Your task to perform on an android device: allow cookies in the chrome app Image 0: 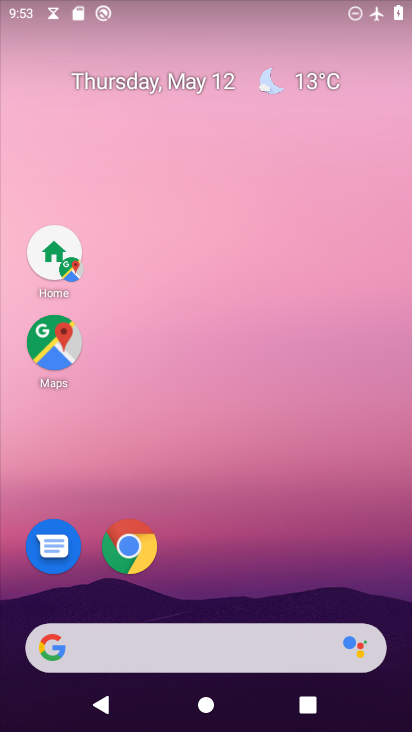
Step 0: press home button
Your task to perform on an android device: allow cookies in the chrome app Image 1: 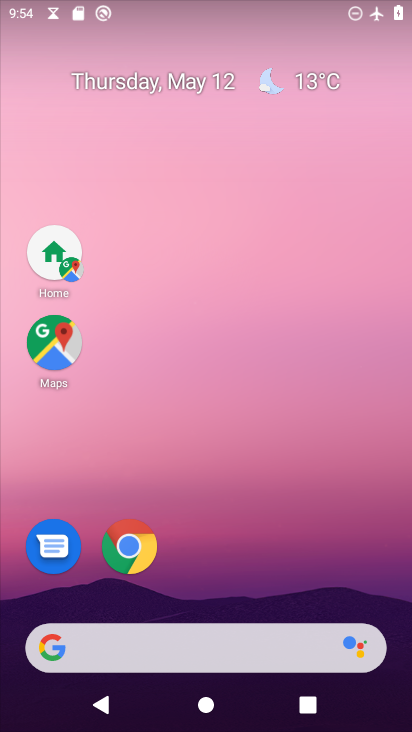
Step 1: drag from (173, 656) to (356, 129)
Your task to perform on an android device: allow cookies in the chrome app Image 2: 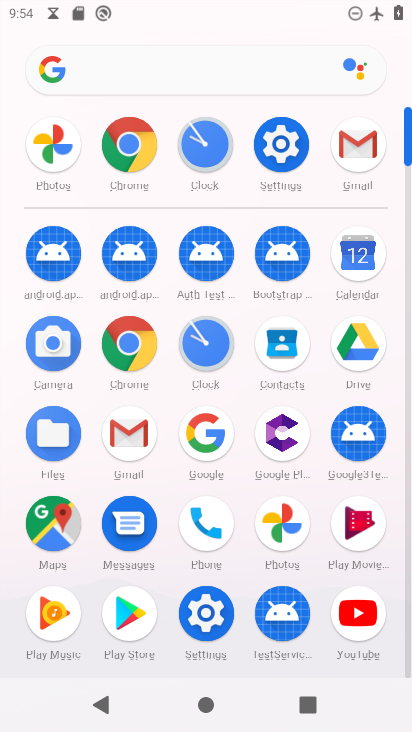
Step 2: click (126, 165)
Your task to perform on an android device: allow cookies in the chrome app Image 3: 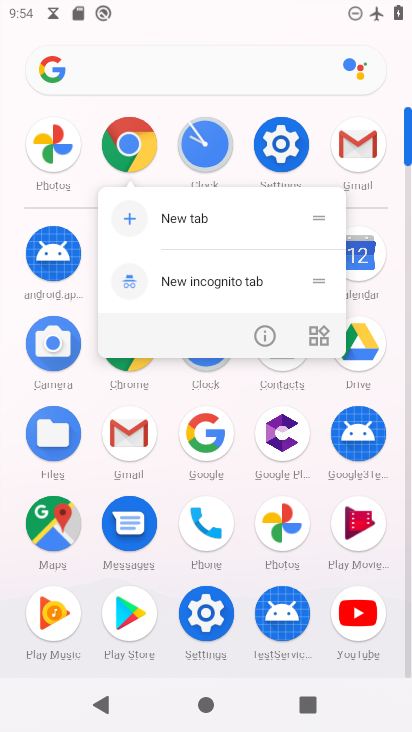
Step 3: click (128, 151)
Your task to perform on an android device: allow cookies in the chrome app Image 4: 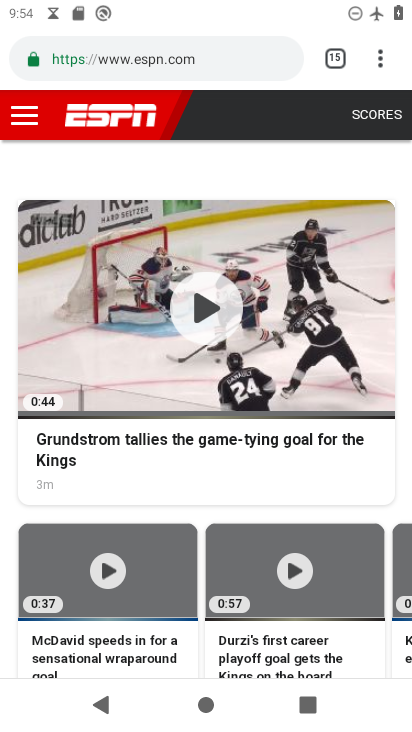
Step 4: drag from (380, 62) to (226, 578)
Your task to perform on an android device: allow cookies in the chrome app Image 5: 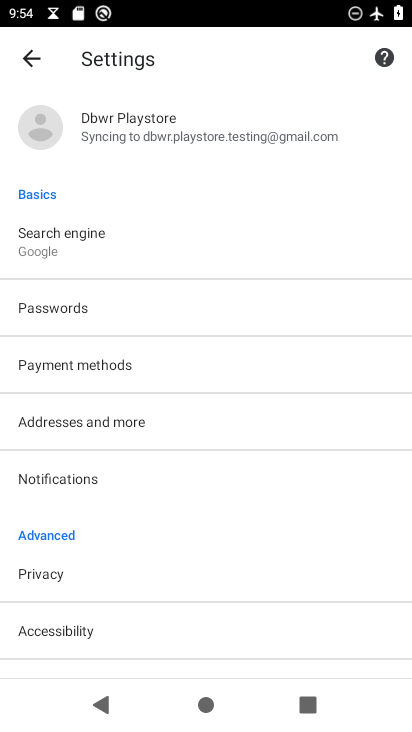
Step 5: drag from (153, 577) to (300, 259)
Your task to perform on an android device: allow cookies in the chrome app Image 6: 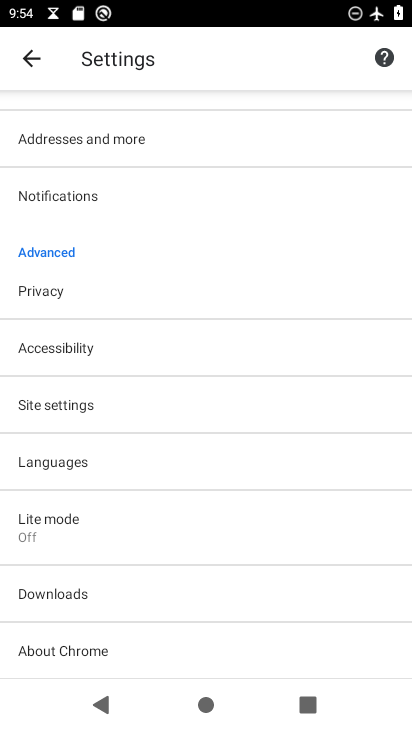
Step 6: click (97, 416)
Your task to perform on an android device: allow cookies in the chrome app Image 7: 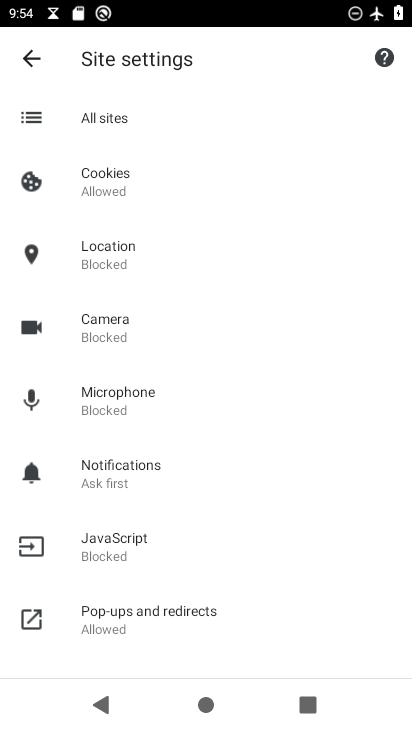
Step 7: click (114, 186)
Your task to perform on an android device: allow cookies in the chrome app Image 8: 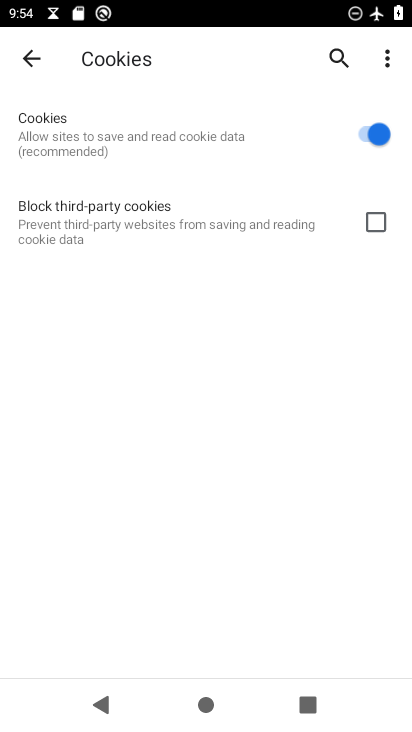
Step 8: task complete